Your task to perform on an android device: toggle show notifications on the lock screen Image 0: 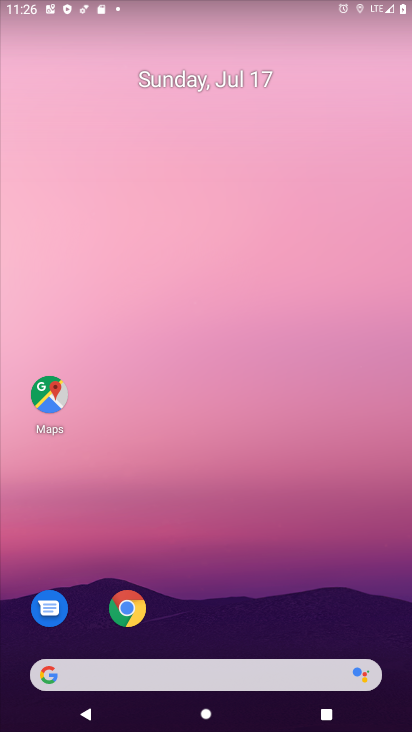
Step 0: drag from (215, 643) to (256, 23)
Your task to perform on an android device: toggle show notifications on the lock screen Image 1: 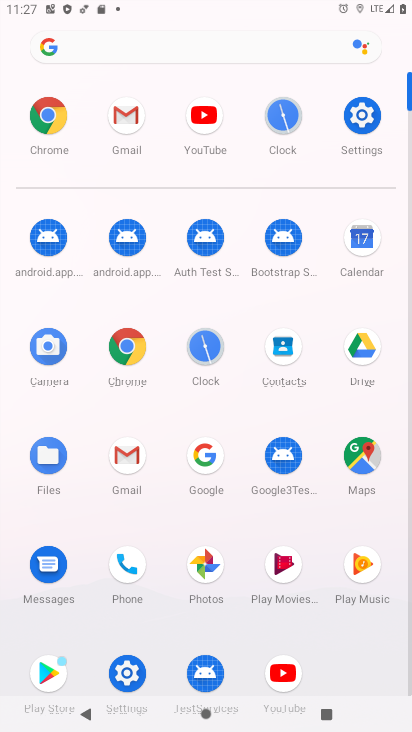
Step 1: click (129, 656)
Your task to perform on an android device: toggle show notifications on the lock screen Image 2: 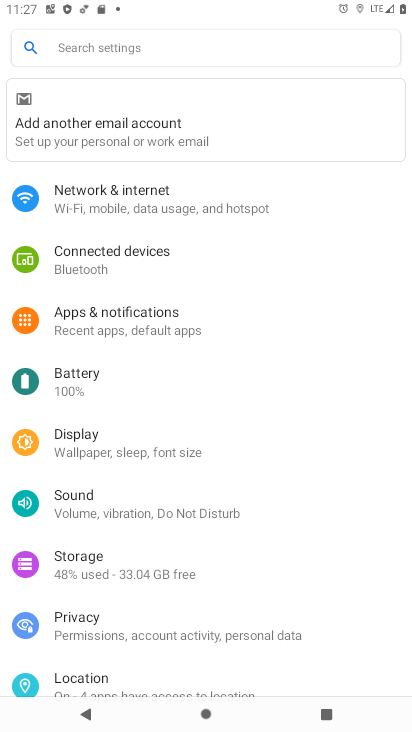
Step 2: click (115, 318)
Your task to perform on an android device: toggle show notifications on the lock screen Image 3: 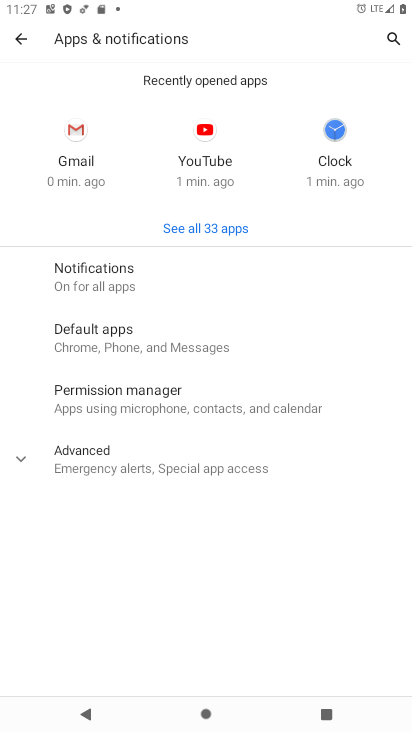
Step 3: click (80, 281)
Your task to perform on an android device: toggle show notifications on the lock screen Image 4: 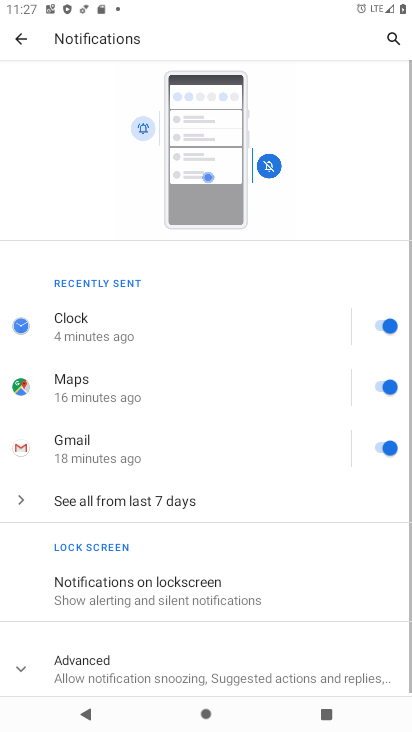
Step 4: click (170, 588)
Your task to perform on an android device: toggle show notifications on the lock screen Image 5: 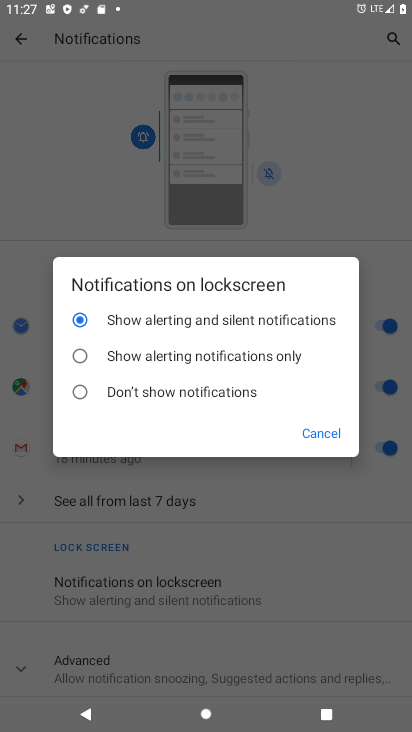
Step 5: click (127, 372)
Your task to perform on an android device: toggle show notifications on the lock screen Image 6: 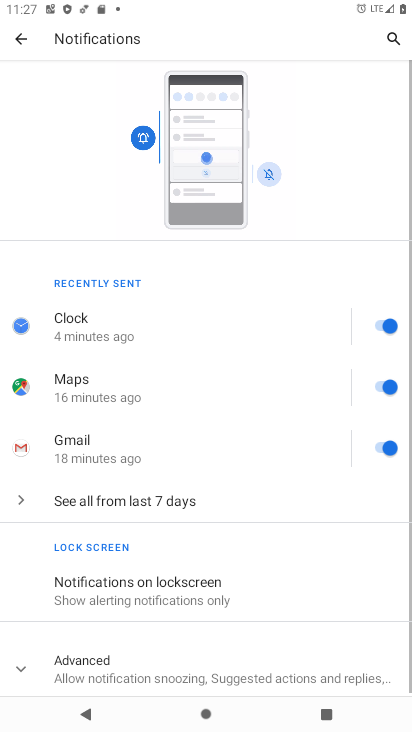
Step 6: task complete